Your task to perform on an android device: stop showing notifications on the lock screen Image 0: 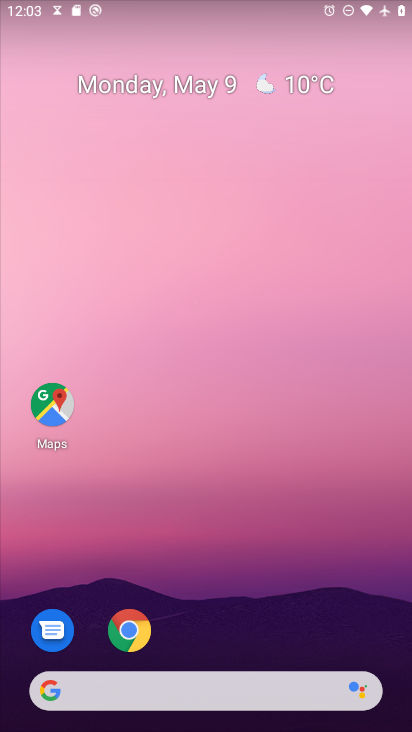
Step 0: drag from (167, 690) to (332, 114)
Your task to perform on an android device: stop showing notifications on the lock screen Image 1: 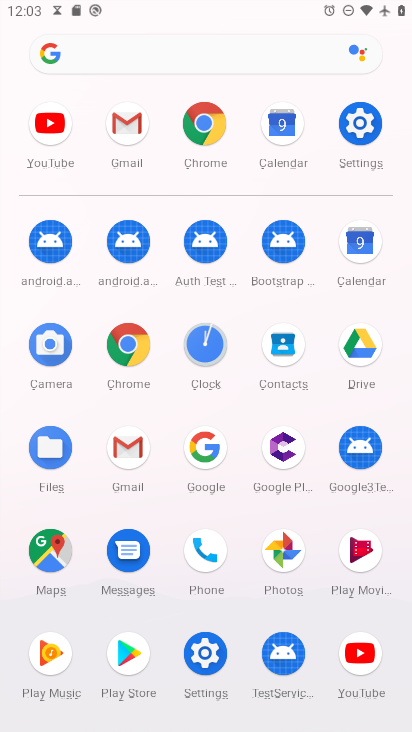
Step 1: click (359, 125)
Your task to perform on an android device: stop showing notifications on the lock screen Image 2: 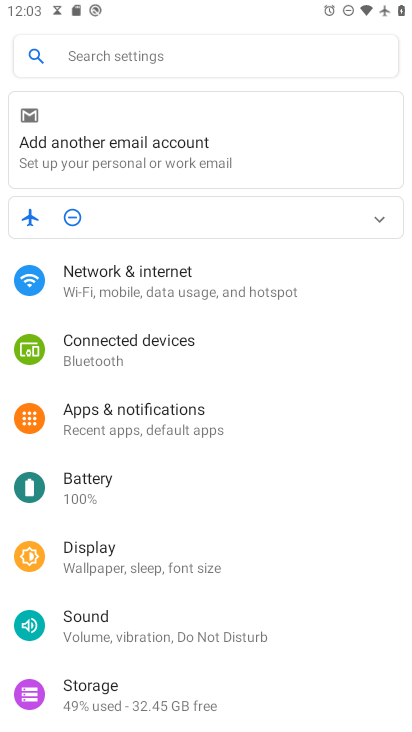
Step 2: click (187, 413)
Your task to perform on an android device: stop showing notifications on the lock screen Image 3: 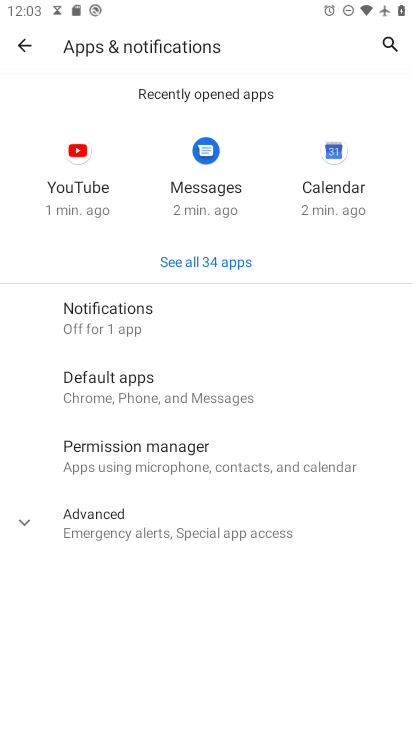
Step 3: click (145, 325)
Your task to perform on an android device: stop showing notifications on the lock screen Image 4: 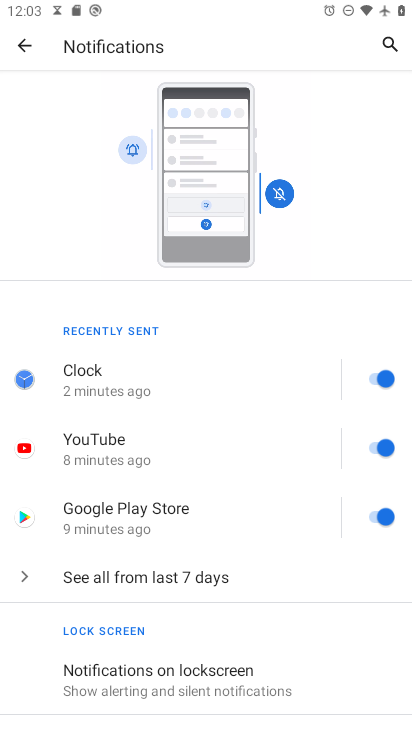
Step 4: drag from (204, 515) to (286, 91)
Your task to perform on an android device: stop showing notifications on the lock screen Image 5: 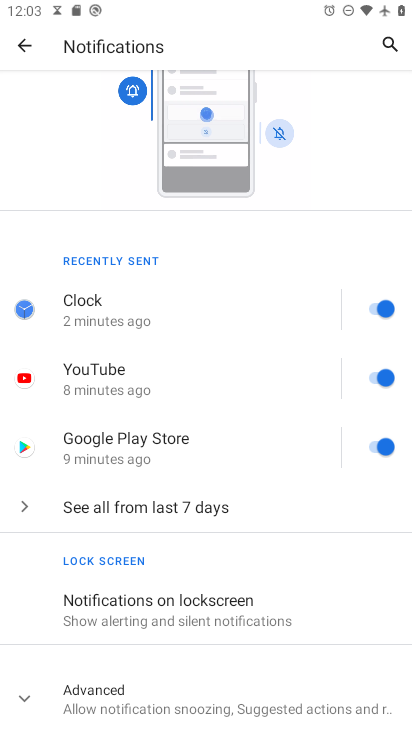
Step 5: click (162, 618)
Your task to perform on an android device: stop showing notifications on the lock screen Image 6: 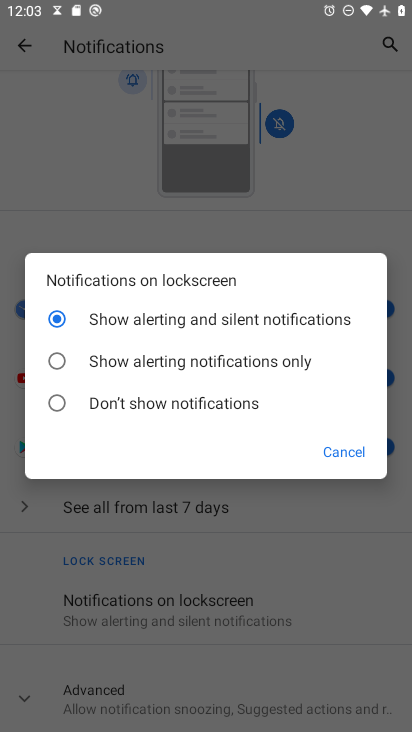
Step 6: click (57, 401)
Your task to perform on an android device: stop showing notifications on the lock screen Image 7: 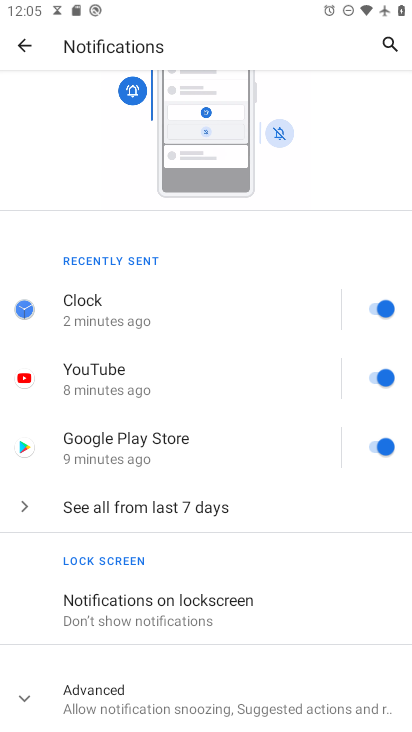
Step 7: task complete